Your task to perform on an android device: Do I have any events tomorrow? Image 0: 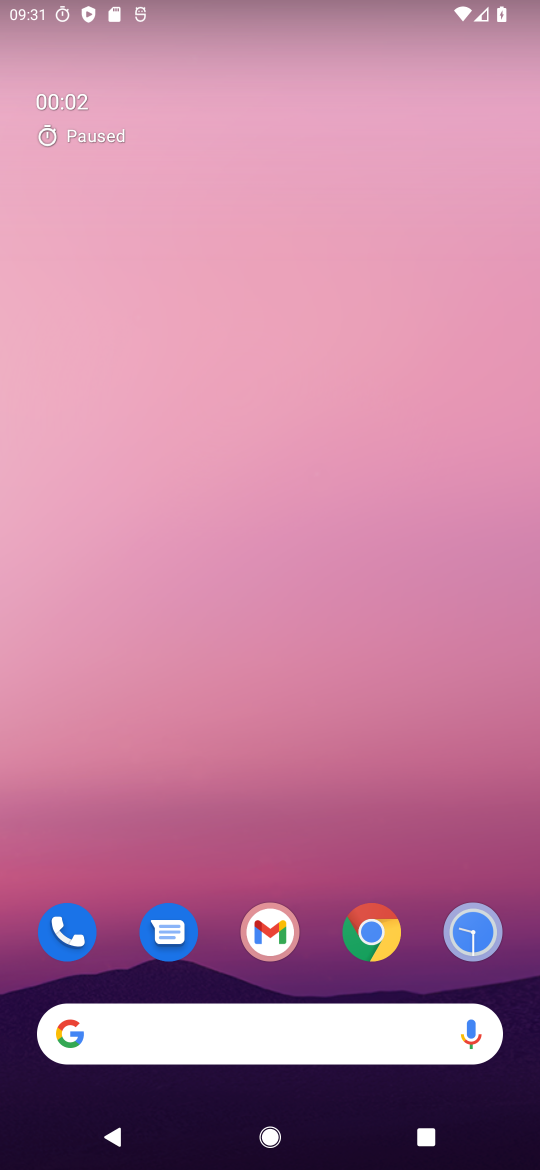
Step 0: drag from (220, 1032) to (418, 82)
Your task to perform on an android device: Do I have any events tomorrow? Image 1: 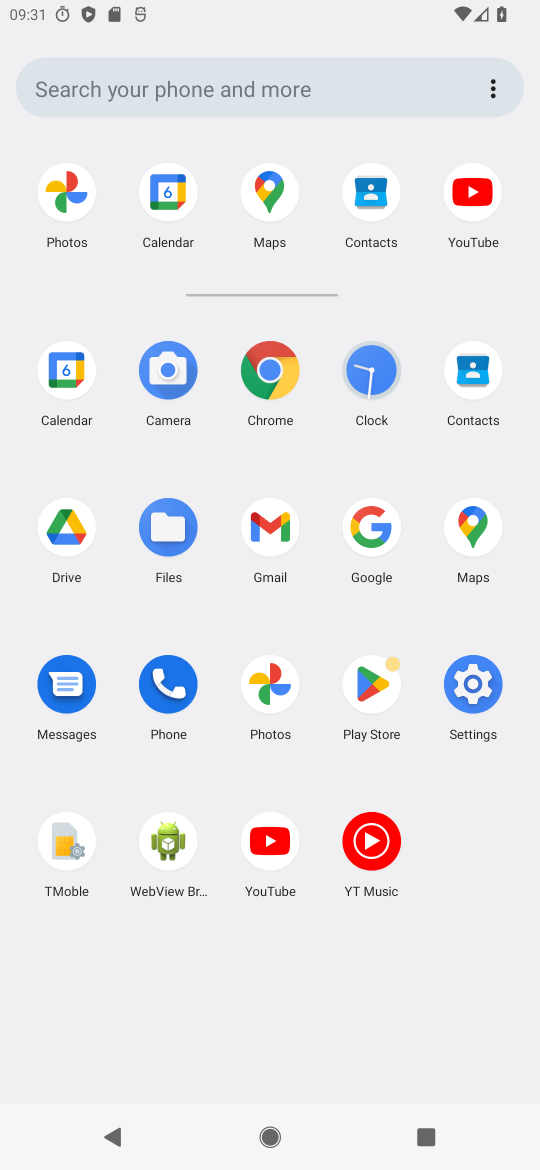
Step 1: click (77, 378)
Your task to perform on an android device: Do I have any events tomorrow? Image 2: 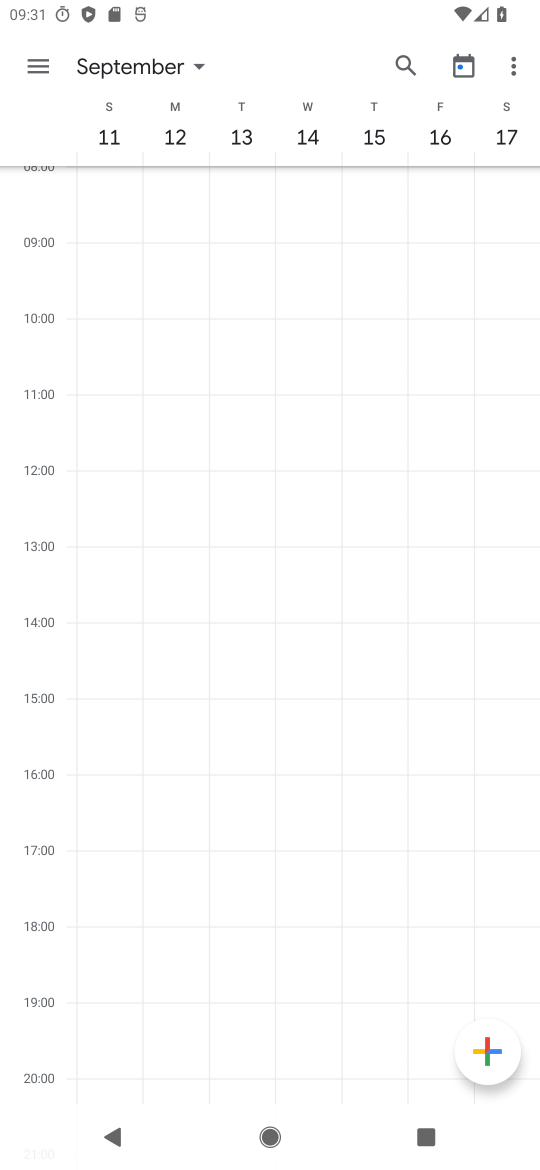
Step 2: click (146, 74)
Your task to perform on an android device: Do I have any events tomorrow? Image 3: 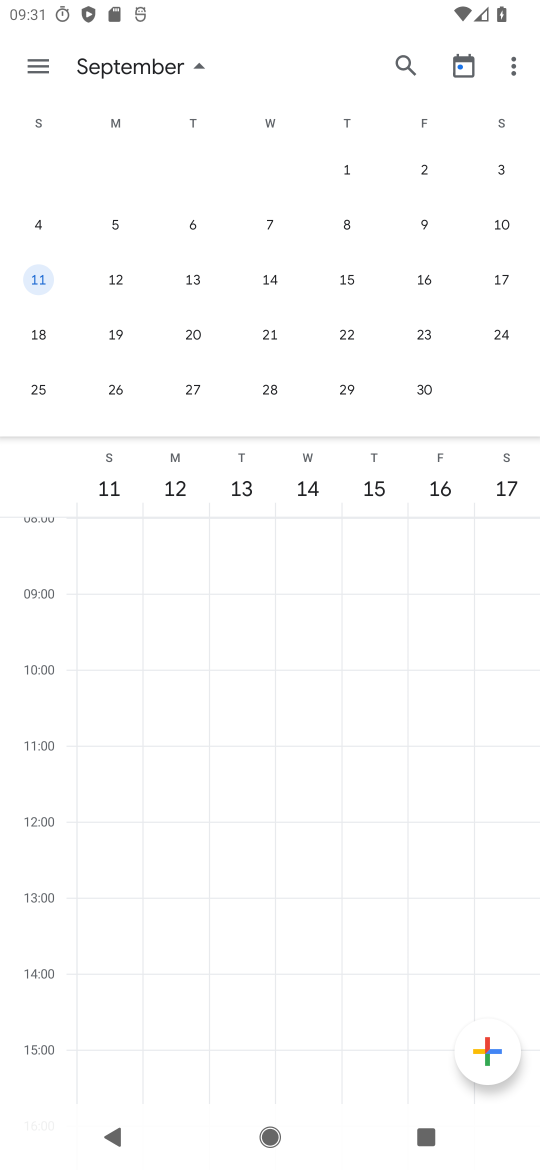
Step 3: drag from (65, 317) to (540, 182)
Your task to perform on an android device: Do I have any events tomorrow? Image 4: 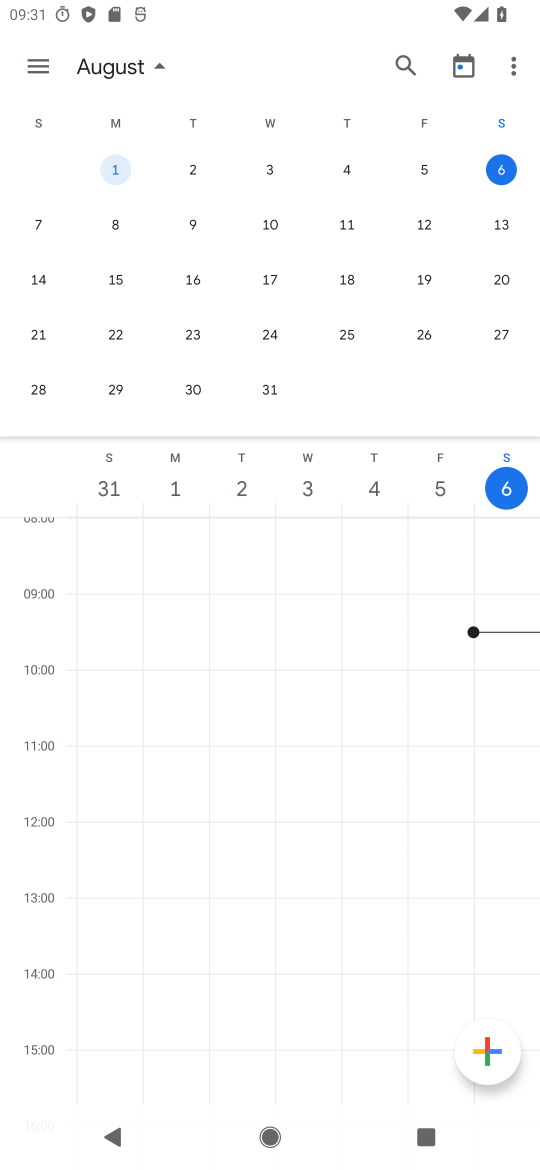
Step 4: click (39, 225)
Your task to perform on an android device: Do I have any events tomorrow? Image 5: 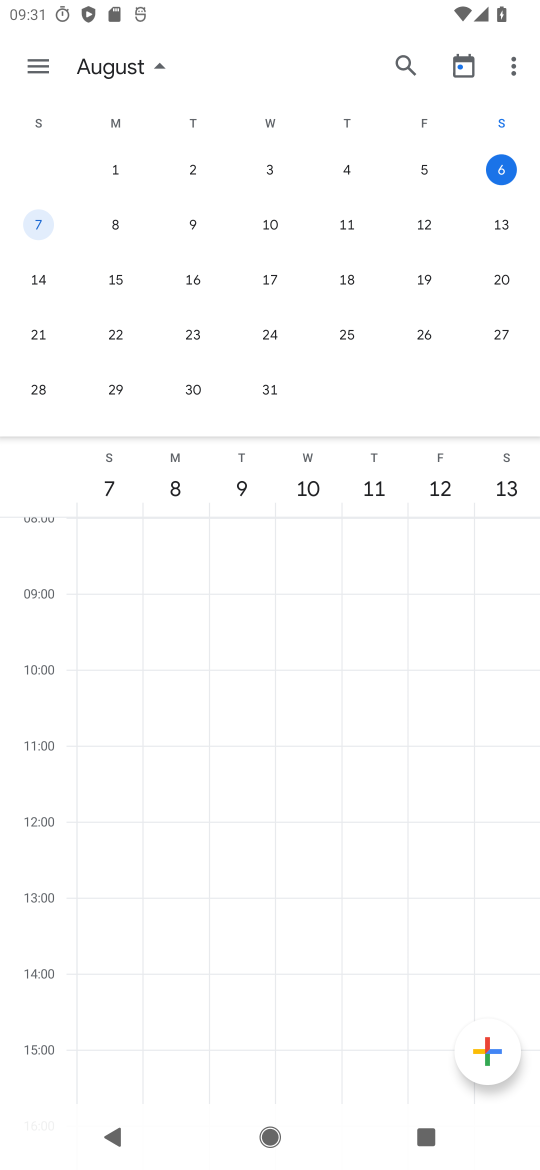
Step 5: click (45, 55)
Your task to perform on an android device: Do I have any events tomorrow? Image 6: 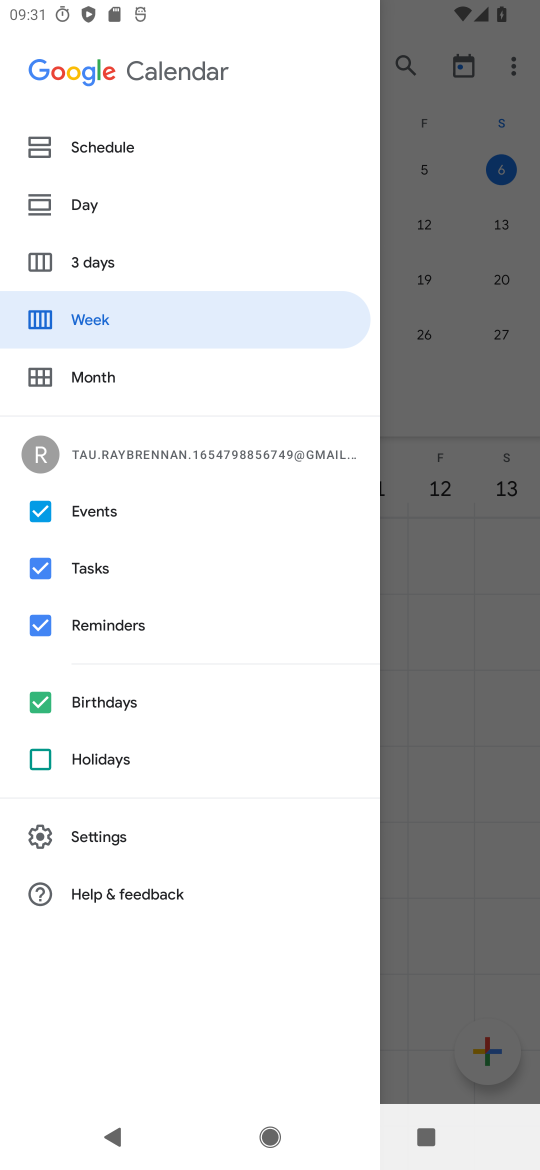
Step 6: click (100, 192)
Your task to perform on an android device: Do I have any events tomorrow? Image 7: 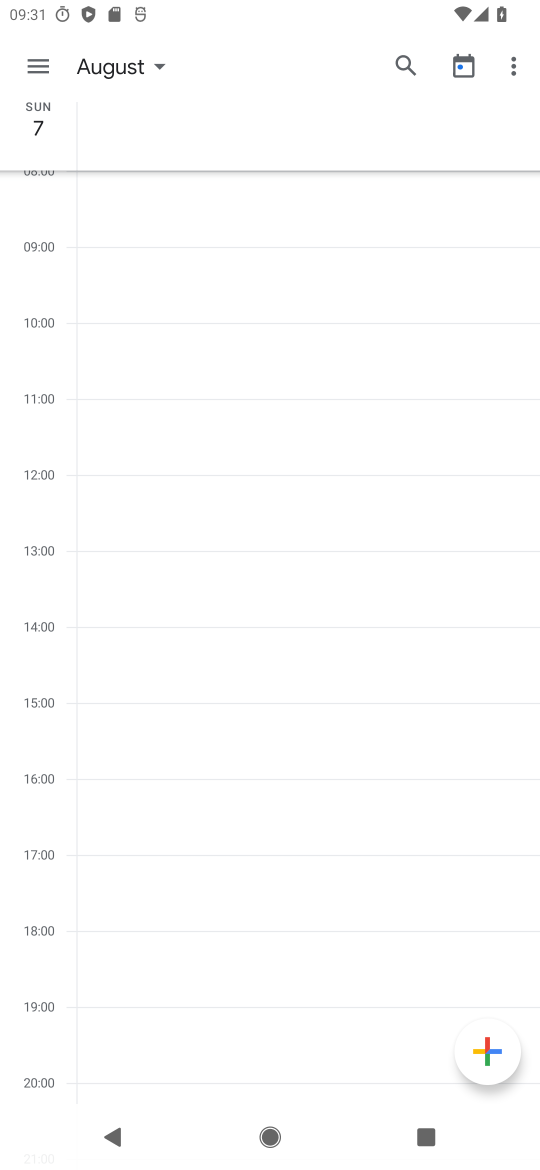
Step 7: click (32, 61)
Your task to perform on an android device: Do I have any events tomorrow? Image 8: 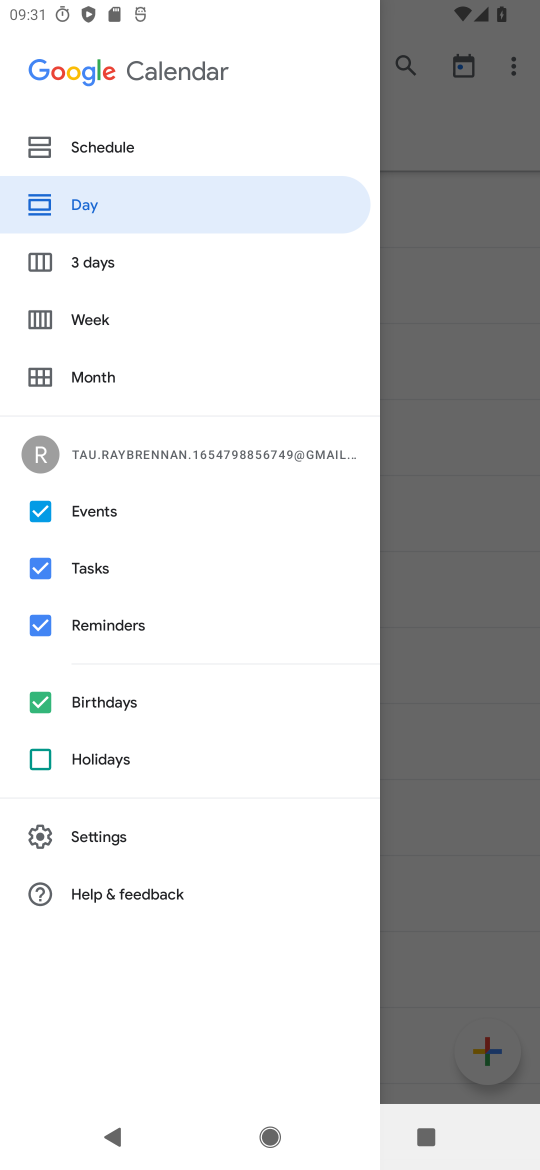
Step 8: click (98, 152)
Your task to perform on an android device: Do I have any events tomorrow? Image 9: 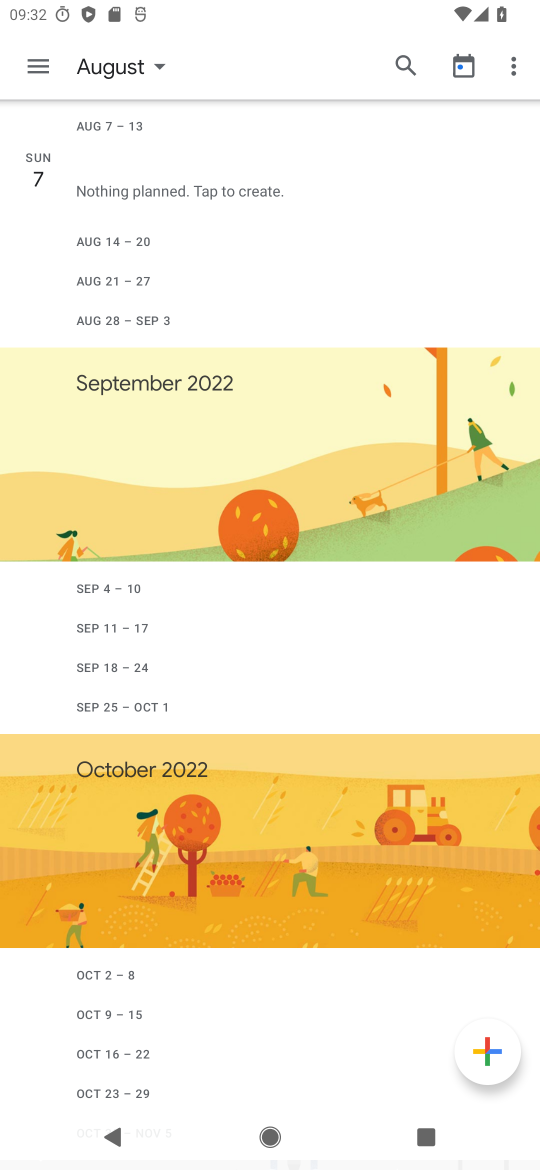
Step 9: task complete